Your task to perform on an android device: Turn off the flashlight Image 0: 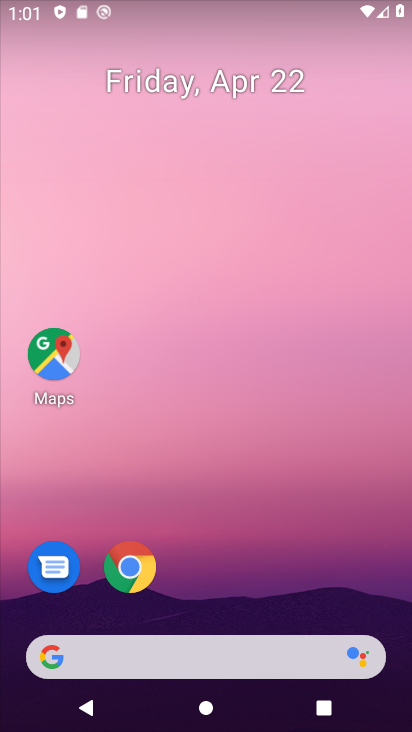
Step 0: drag from (252, 599) to (242, 173)
Your task to perform on an android device: Turn off the flashlight Image 1: 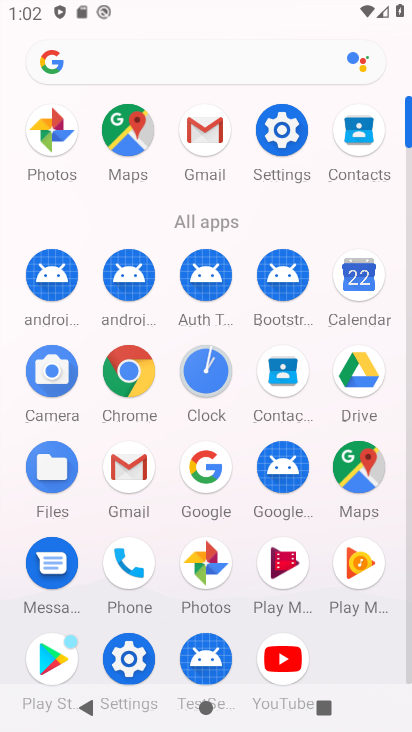
Step 1: click (137, 654)
Your task to perform on an android device: Turn off the flashlight Image 2: 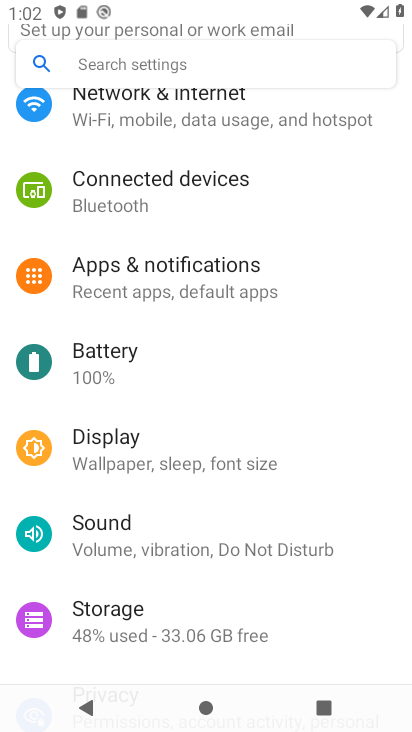
Step 2: task complete